Your task to perform on an android device: What is the capital of Germany? Image 0: 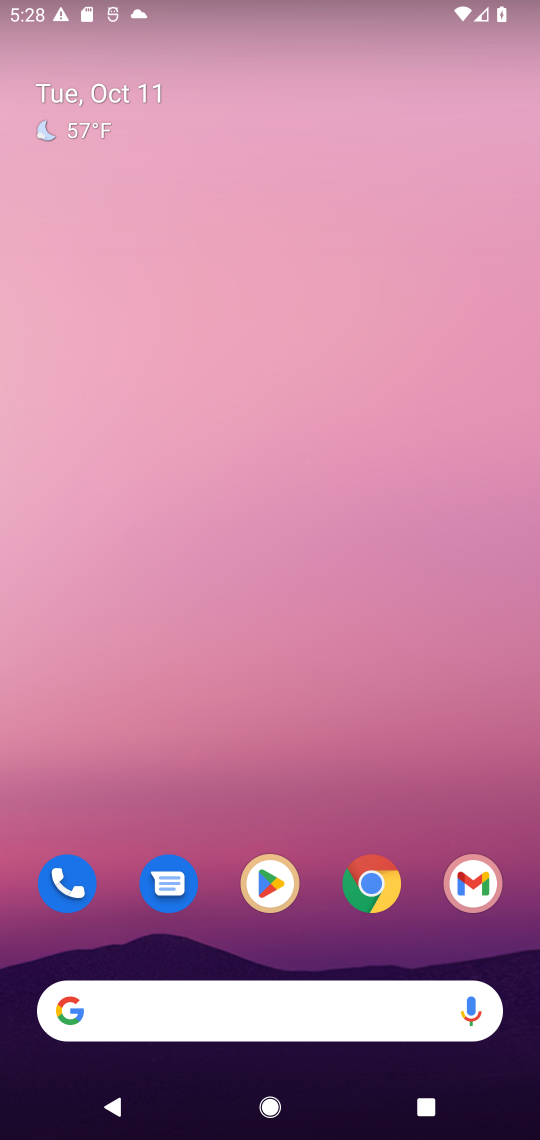
Step 0: drag from (324, 927) to (394, 139)
Your task to perform on an android device: What is the capital of Germany? Image 1: 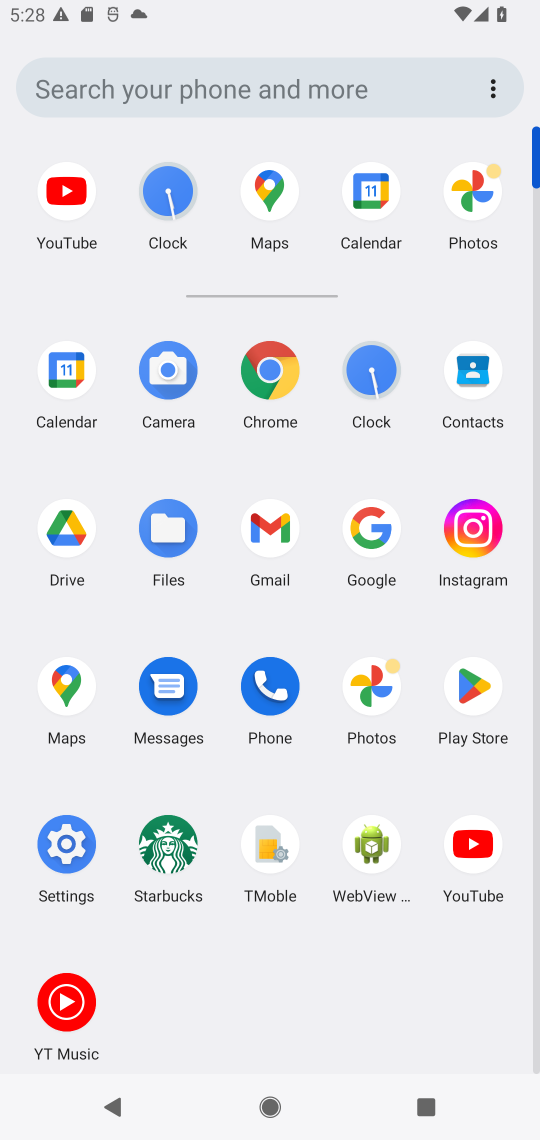
Step 1: click (267, 377)
Your task to perform on an android device: What is the capital of Germany? Image 2: 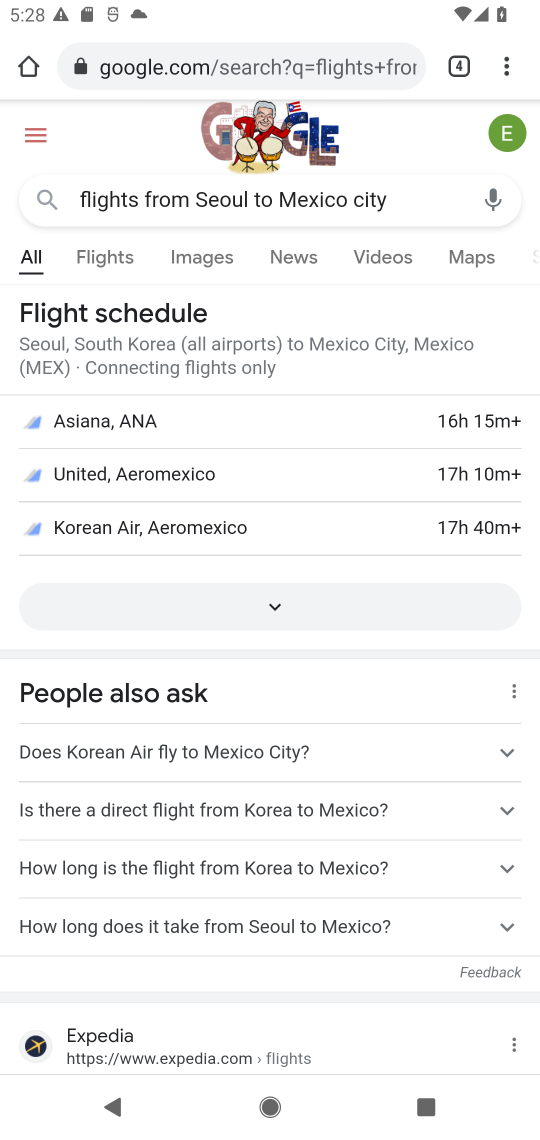
Step 2: click (319, 199)
Your task to perform on an android device: What is the capital of Germany? Image 3: 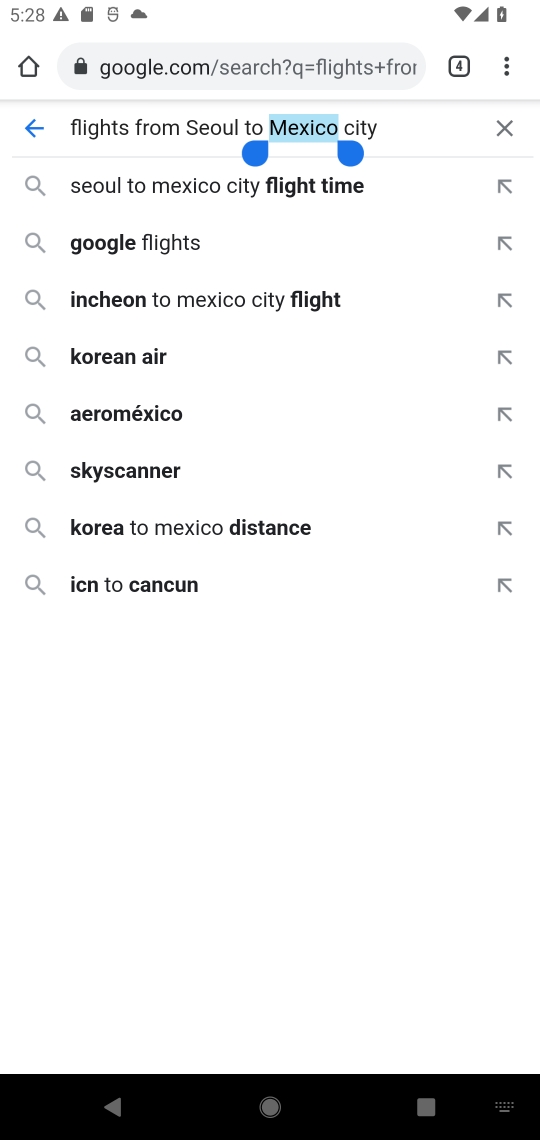
Step 3: click (410, 121)
Your task to perform on an android device: What is the capital of Germany? Image 4: 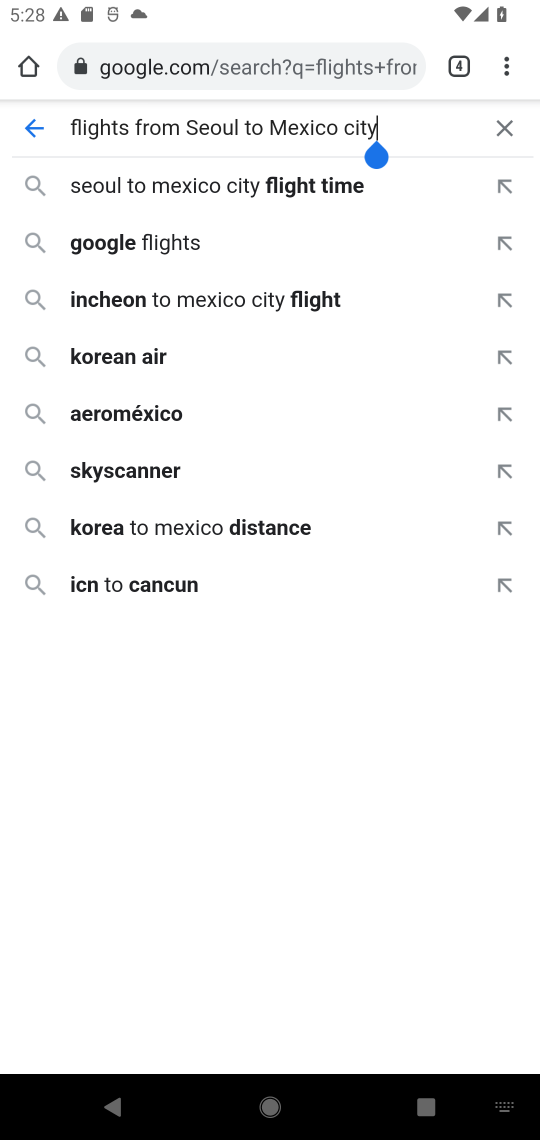
Step 4: click (493, 129)
Your task to perform on an android device: What is the capital of Germany? Image 5: 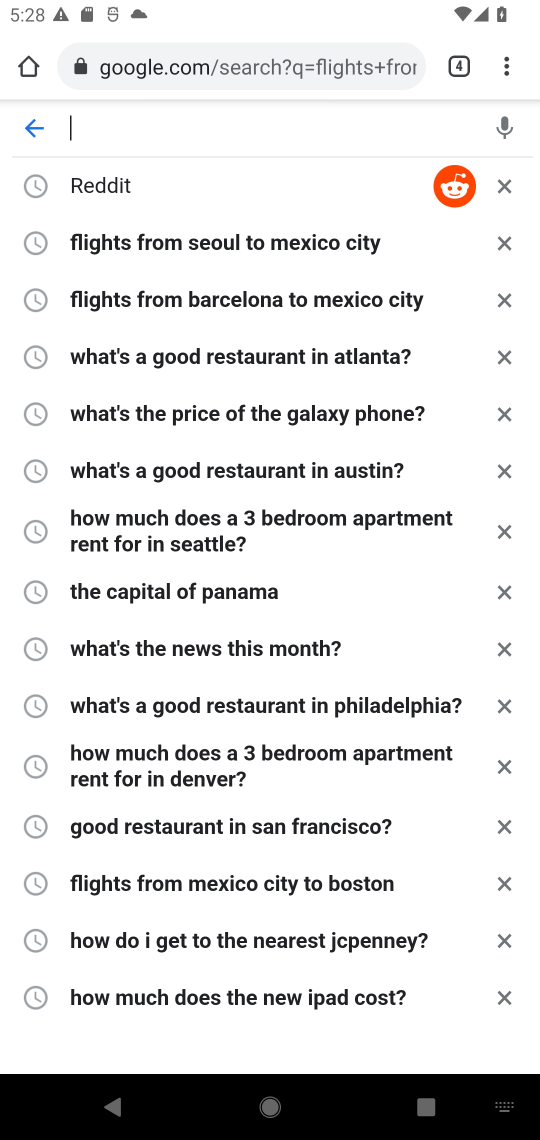
Step 5: type "What is the capital of Germany?"
Your task to perform on an android device: What is the capital of Germany? Image 6: 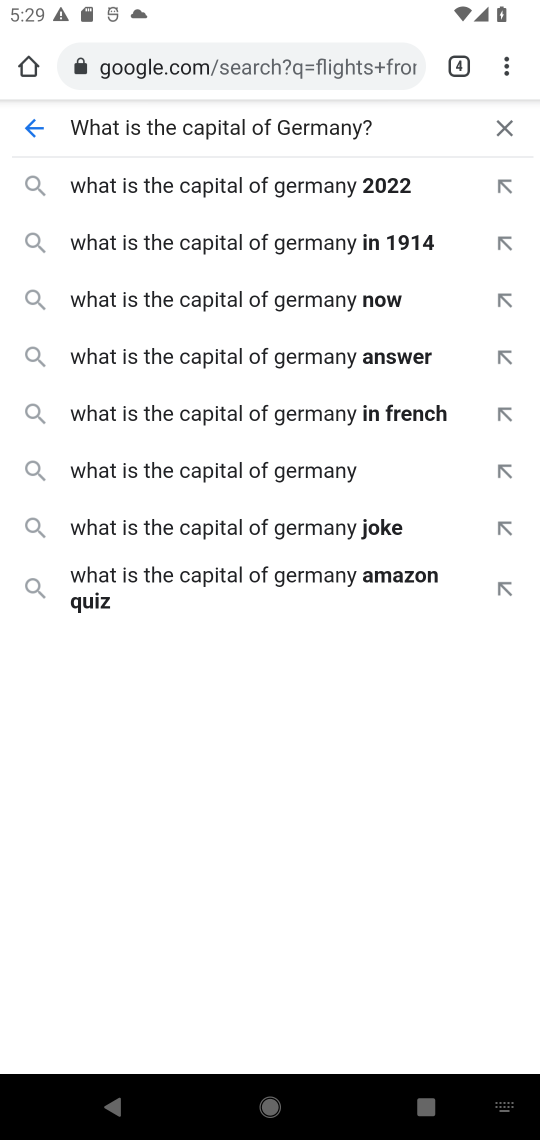
Step 6: press enter
Your task to perform on an android device: What is the capital of Germany? Image 7: 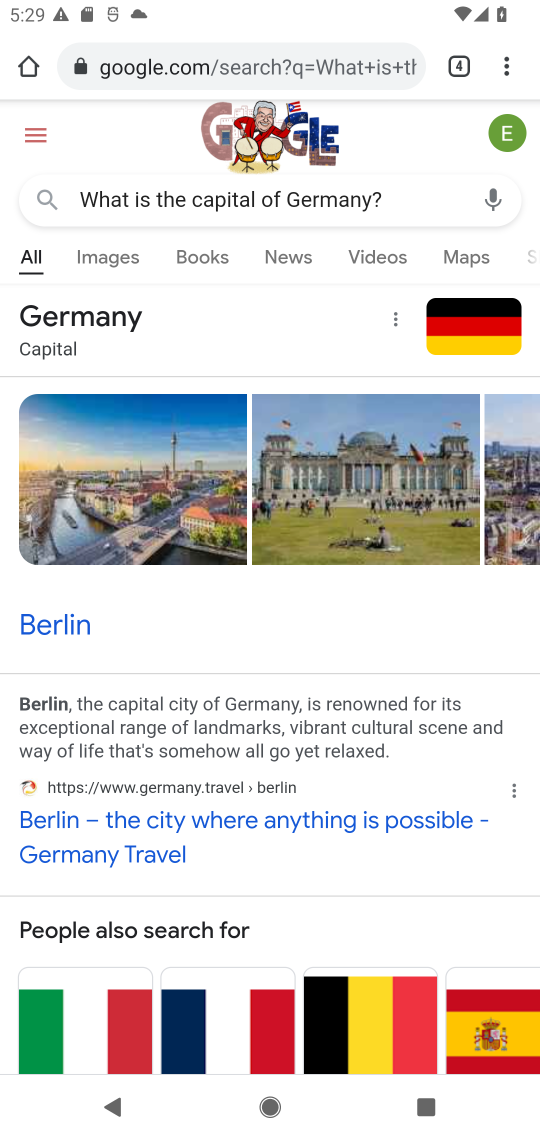
Step 7: task complete